Your task to perform on an android device: What's the weather today? Image 0: 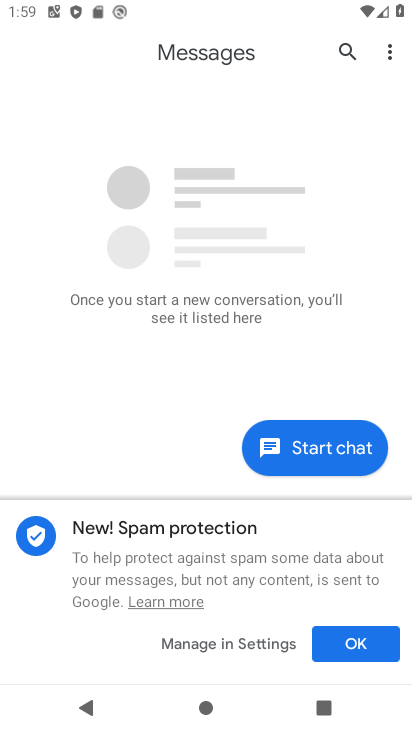
Step 0: press home button
Your task to perform on an android device: What's the weather today? Image 1: 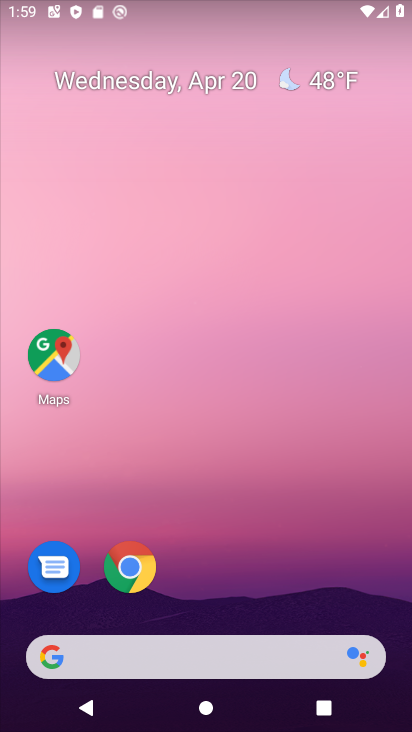
Step 1: drag from (212, 522) to (214, 101)
Your task to perform on an android device: What's the weather today? Image 2: 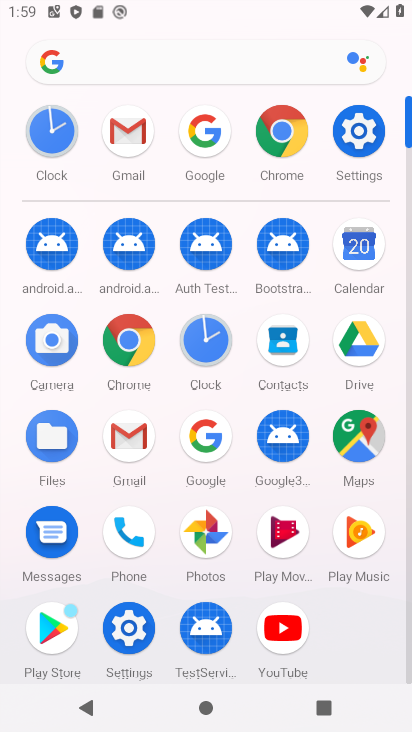
Step 2: click (186, 68)
Your task to perform on an android device: What's the weather today? Image 3: 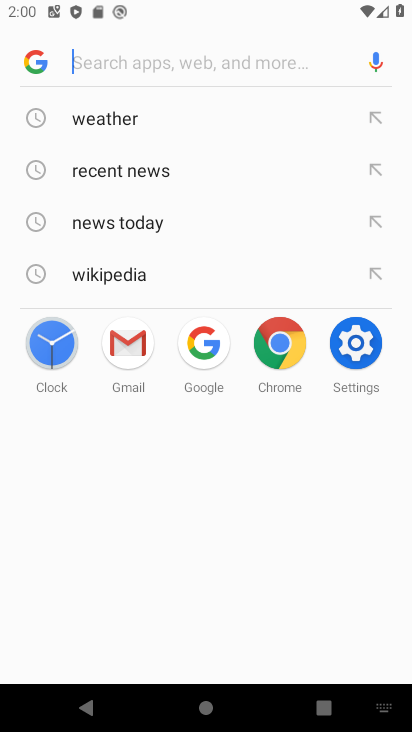
Step 3: type "what's the weather today"
Your task to perform on an android device: What's the weather today? Image 4: 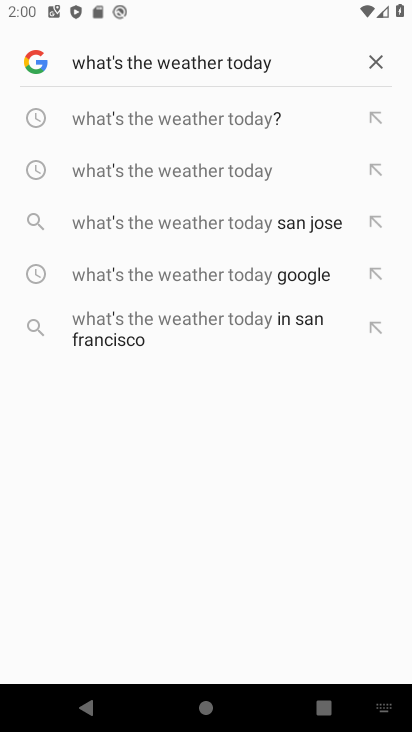
Step 4: click (210, 113)
Your task to perform on an android device: What's the weather today? Image 5: 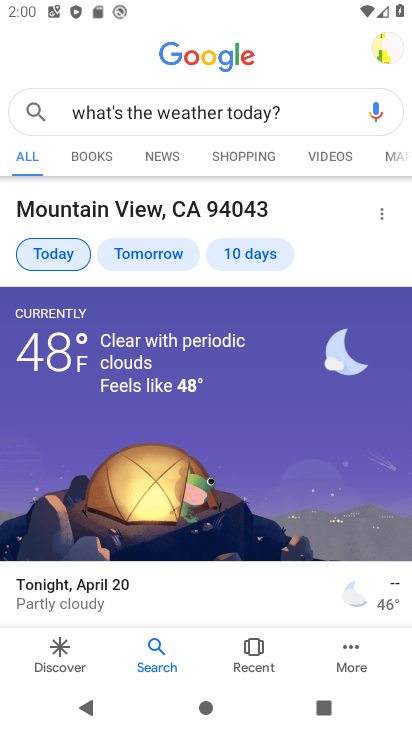
Step 5: task complete